Your task to perform on an android device: Show me productivity apps on the Play Store Image 0: 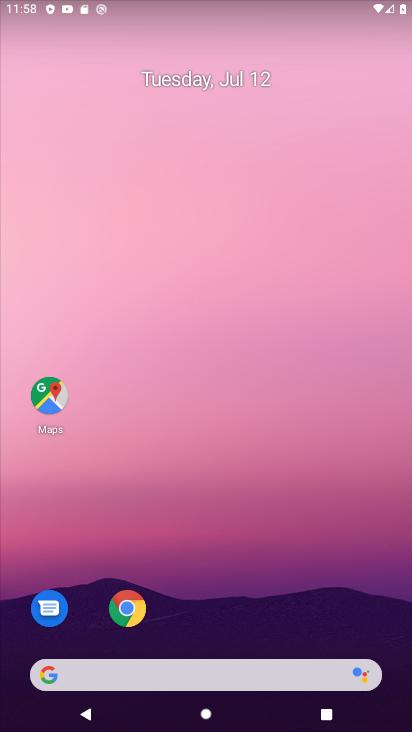
Step 0: drag from (207, 608) to (261, 23)
Your task to perform on an android device: Show me productivity apps on the Play Store Image 1: 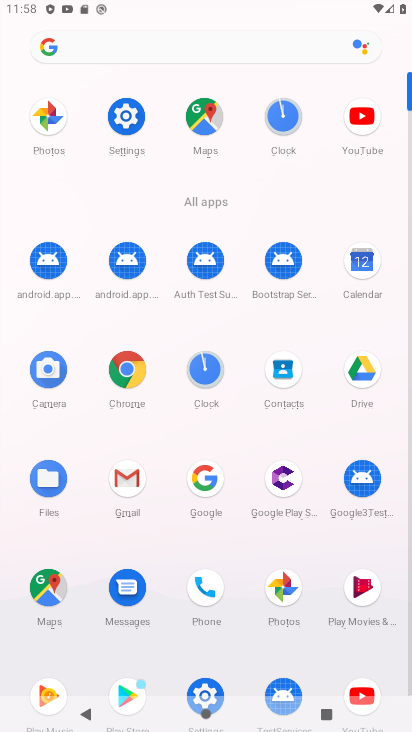
Step 1: click (131, 684)
Your task to perform on an android device: Show me productivity apps on the Play Store Image 2: 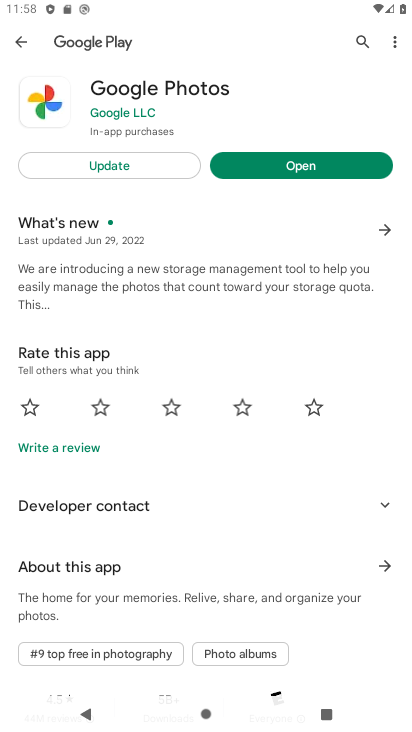
Step 2: click (24, 42)
Your task to perform on an android device: Show me productivity apps on the Play Store Image 3: 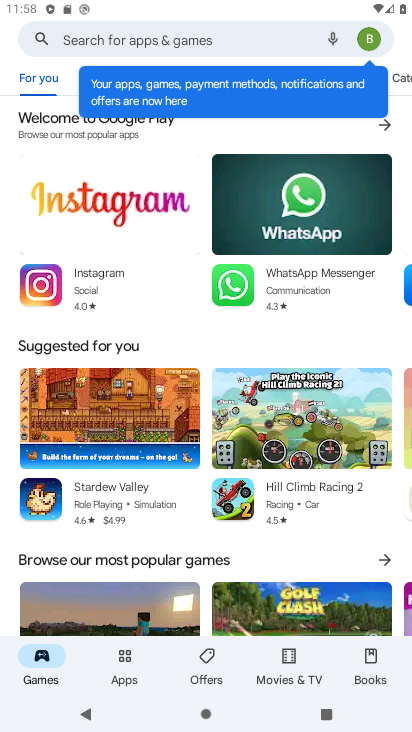
Step 3: click (128, 662)
Your task to perform on an android device: Show me productivity apps on the Play Store Image 4: 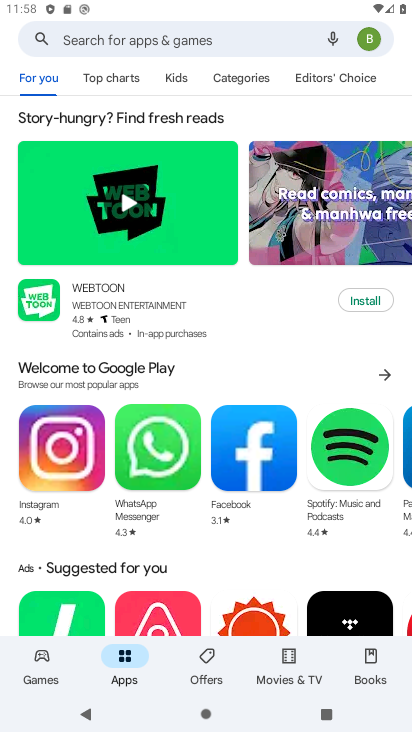
Step 4: drag from (236, 595) to (310, 51)
Your task to perform on an android device: Show me productivity apps on the Play Store Image 5: 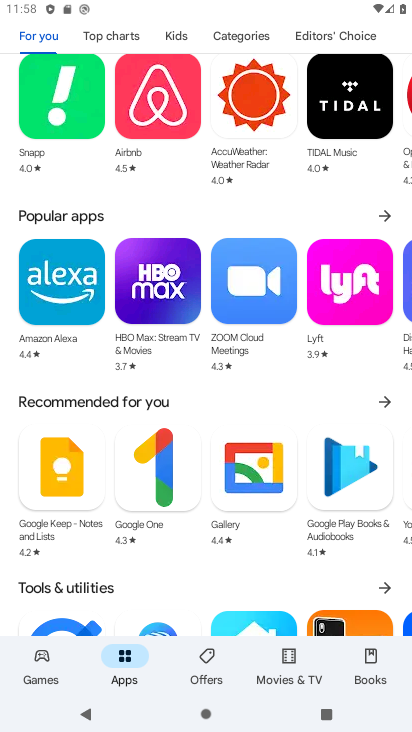
Step 5: drag from (271, 587) to (342, 62)
Your task to perform on an android device: Show me productivity apps on the Play Store Image 6: 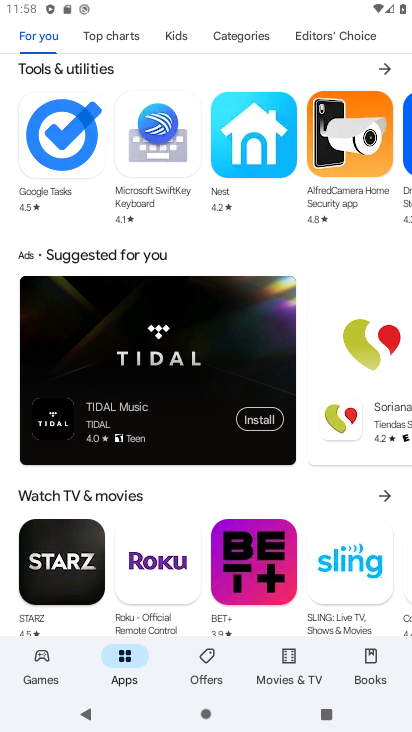
Step 6: drag from (228, 595) to (307, 129)
Your task to perform on an android device: Show me productivity apps on the Play Store Image 7: 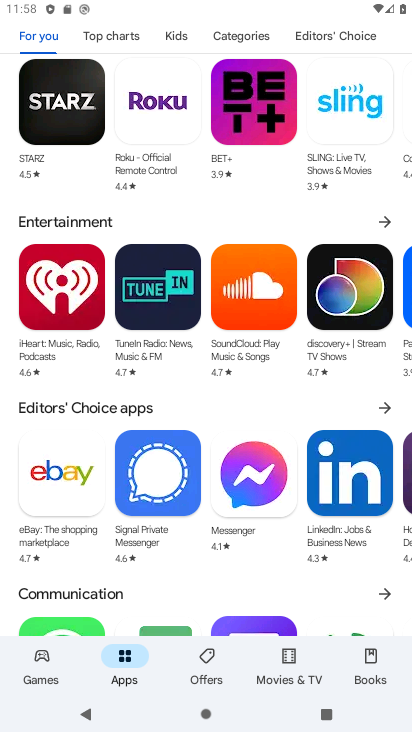
Step 7: drag from (235, 588) to (301, 99)
Your task to perform on an android device: Show me productivity apps on the Play Store Image 8: 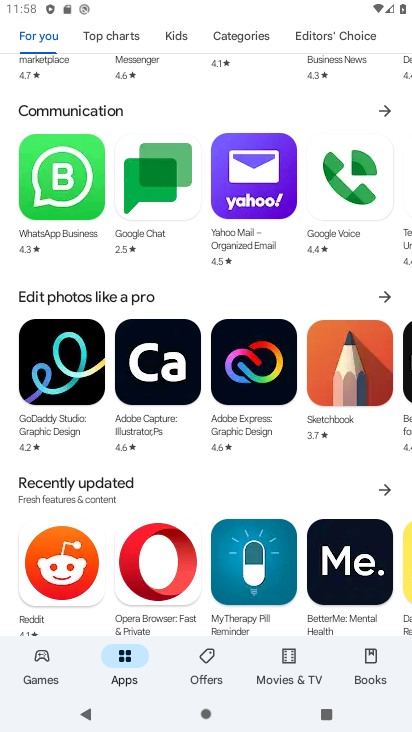
Step 8: drag from (226, 609) to (310, 94)
Your task to perform on an android device: Show me productivity apps on the Play Store Image 9: 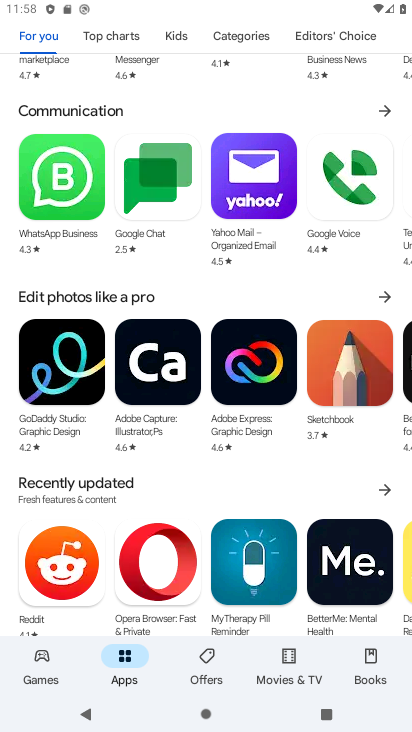
Step 9: drag from (274, 481) to (290, 147)
Your task to perform on an android device: Show me productivity apps on the Play Store Image 10: 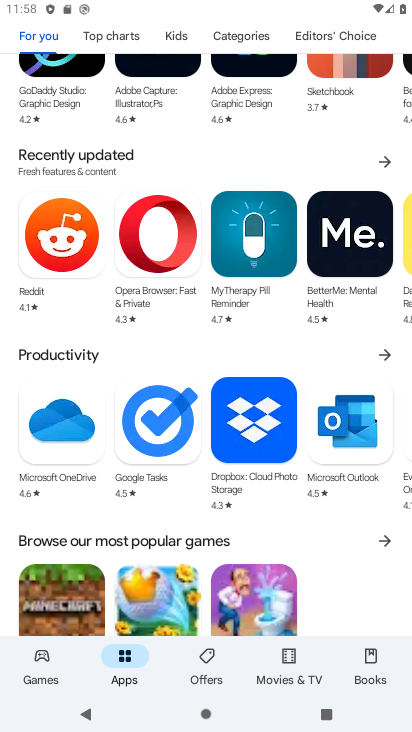
Step 10: click (386, 350)
Your task to perform on an android device: Show me productivity apps on the Play Store Image 11: 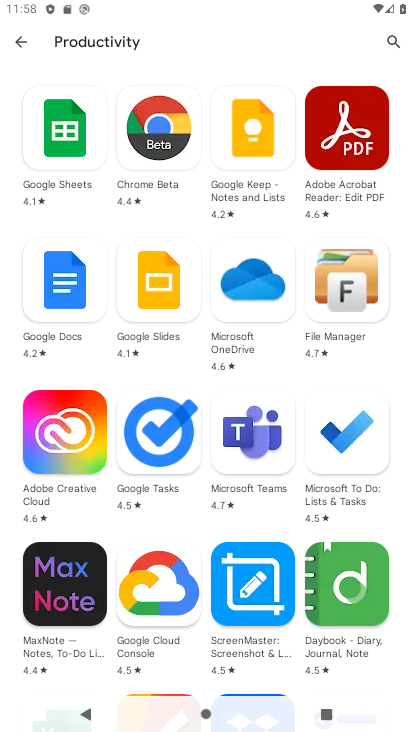
Step 11: task complete